Your task to perform on an android device: Go to wifi settings Image 0: 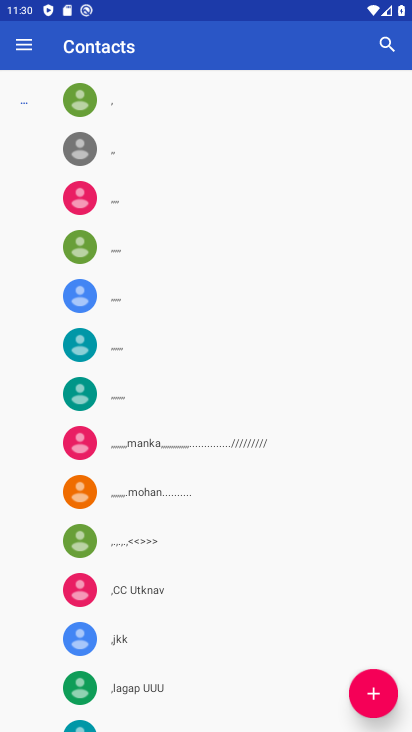
Step 0: press home button
Your task to perform on an android device: Go to wifi settings Image 1: 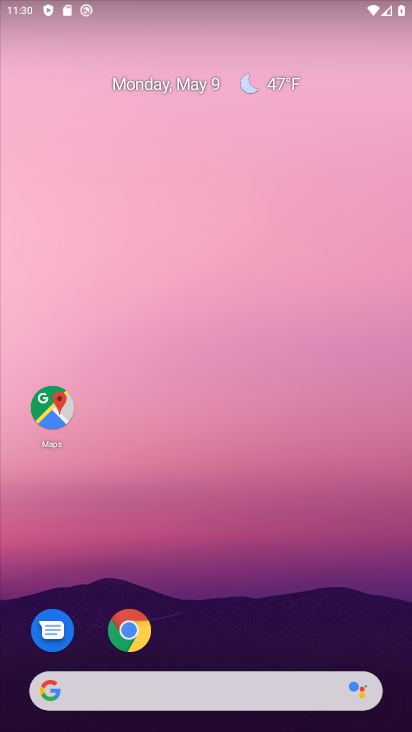
Step 1: drag from (142, 688) to (314, 64)
Your task to perform on an android device: Go to wifi settings Image 2: 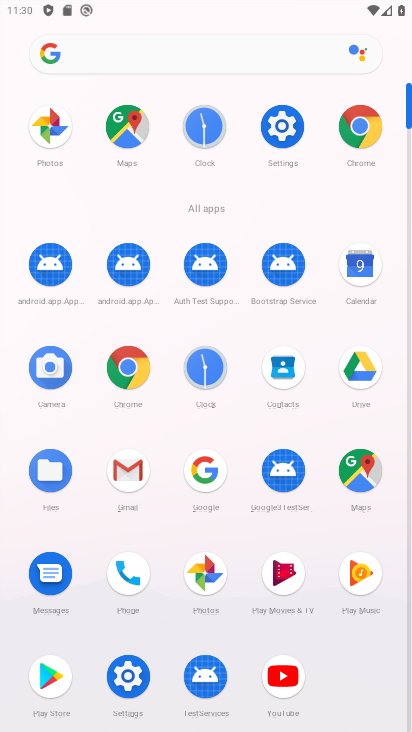
Step 2: click (276, 130)
Your task to perform on an android device: Go to wifi settings Image 3: 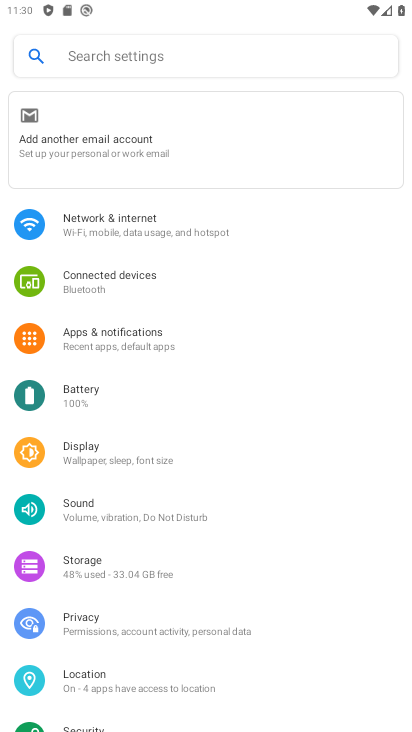
Step 3: click (143, 225)
Your task to perform on an android device: Go to wifi settings Image 4: 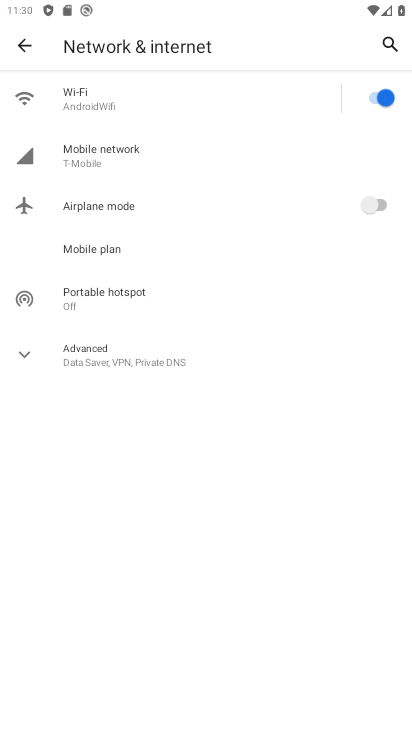
Step 4: click (85, 102)
Your task to perform on an android device: Go to wifi settings Image 5: 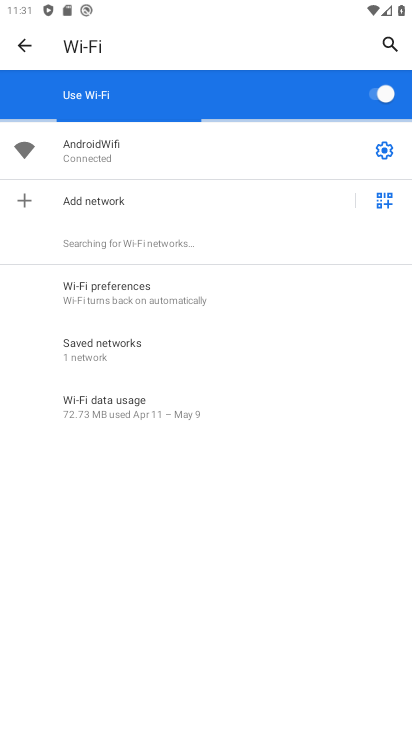
Step 5: task complete